Your task to perform on an android device: Go to network settings Image 0: 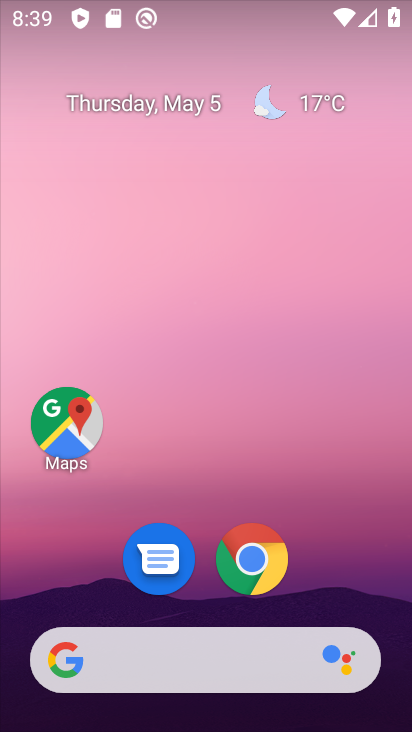
Step 0: drag from (186, 595) to (271, 164)
Your task to perform on an android device: Go to network settings Image 1: 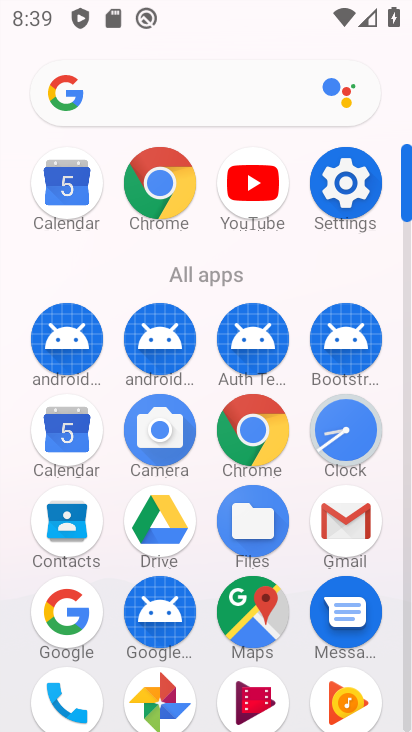
Step 1: click (350, 175)
Your task to perform on an android device: Go to network settings Image 2: 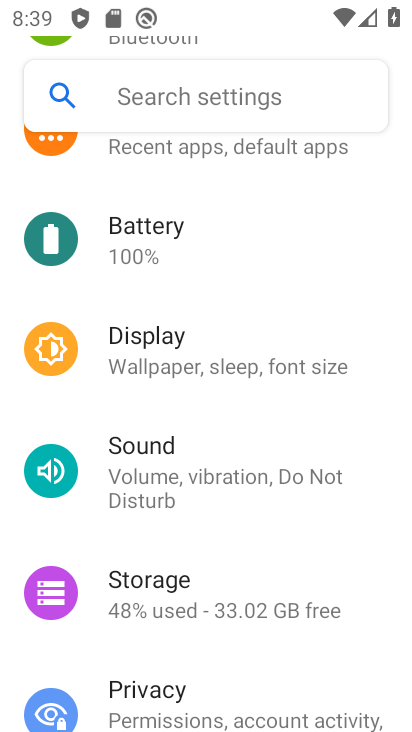
Step 2: drag from (213, 202) to (168, 685)
Your task to perform on an android device: Go to network settings Image 3: 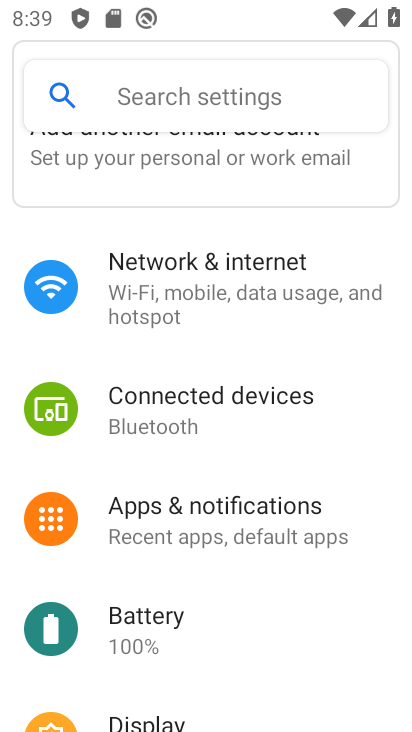
Step 3: click (217, 273)
Your task to perform on an android device: Go to network settings Image 4: 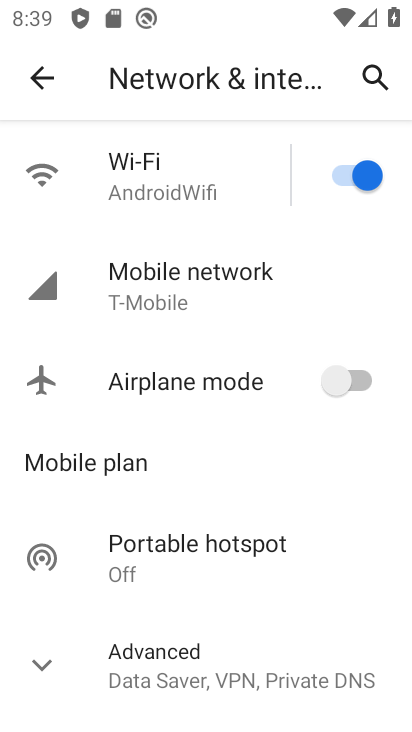
Step 4: task complete